Your task to perform on an android device: Search for "dell alienware" on newegg, select the first entry, add it to the cart, then select checkout. Image 0: 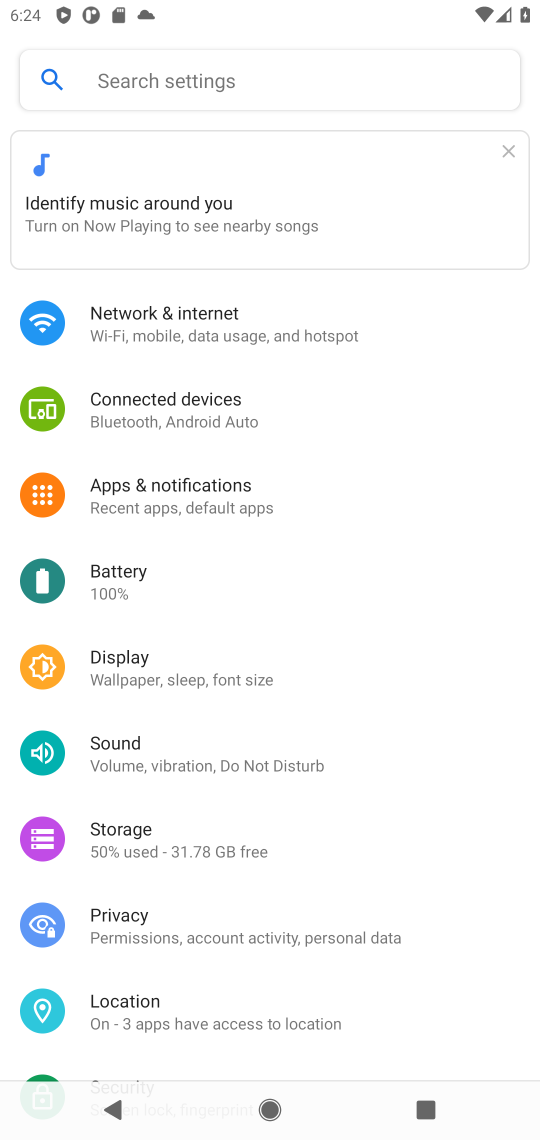
Step 0: press home button
Your task to perform on an android device: Search for "dell alienware" on newegg, select the first entry, add it to the cart, then select checkout. Image 1: 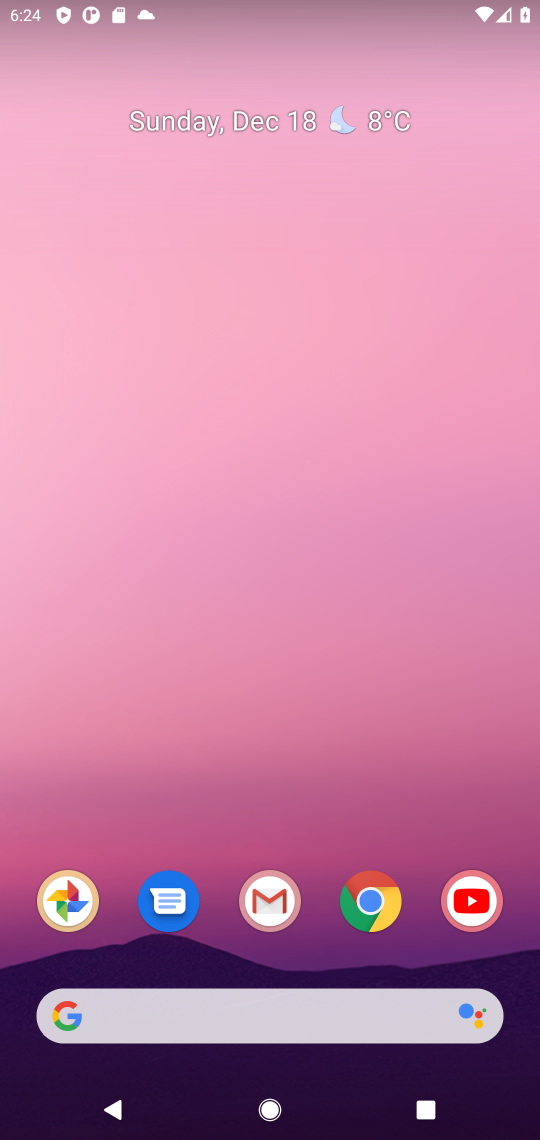
Step 1: click (363, 932)
Your task to perform on an android device: Search for "dell alienware" on newegg, select the first entry, add it to the cart, then select checkout. Image 2: 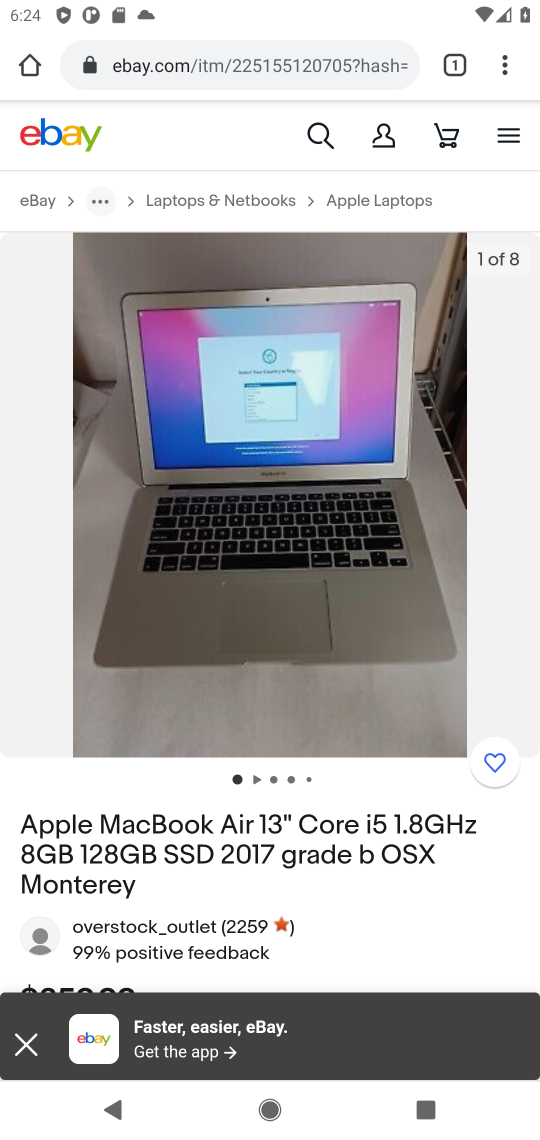
Step 2: click (355, 66)
Your task to perform on an android device: Search for "dell alienware" on newegg, select the first entry, add it to the cart, then select checkout. Image 3: 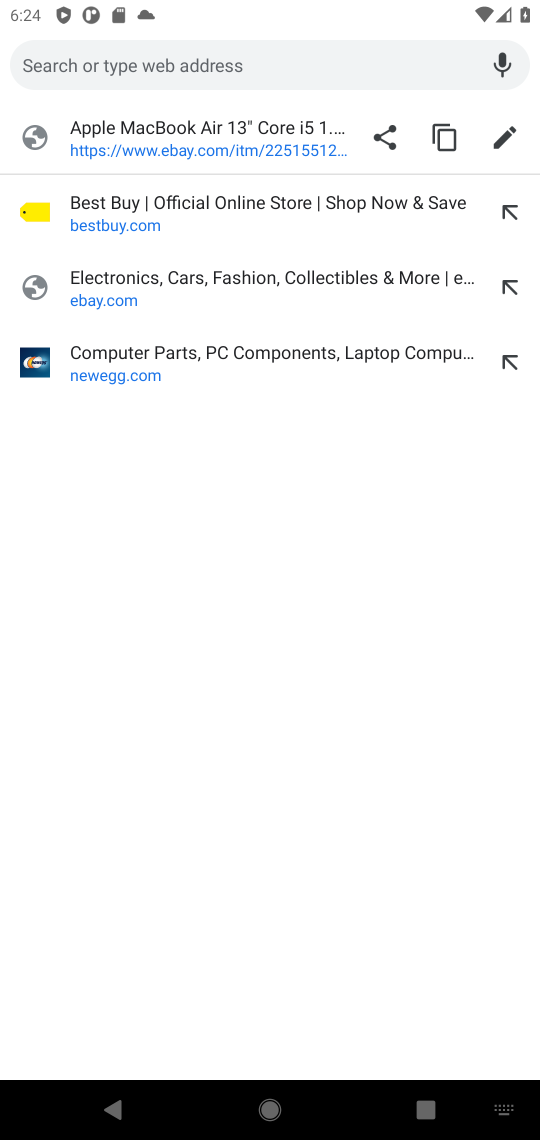
Step 3: click (369, 367)
Your task to perform on an android device: Search for "dell alienware" on newegg, select the first entry, add it to the cart, then select checkout. Image 4: 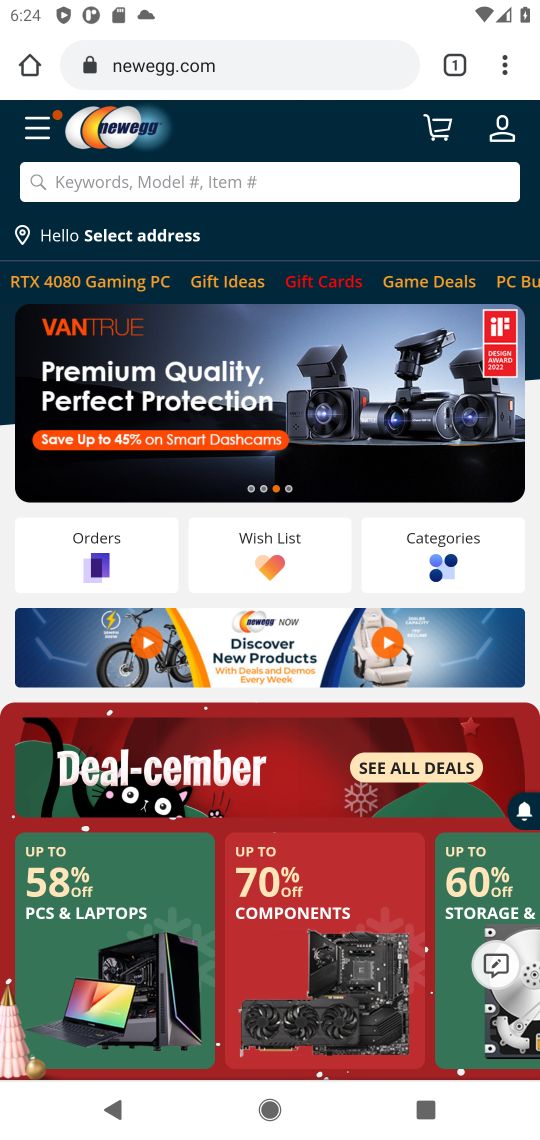
Step 4: click (97, 164)
Your task to perform on an android device: Search for "dell alienware" on newegg, select the first entry, add it to the cart, then select checkout. Image 5: 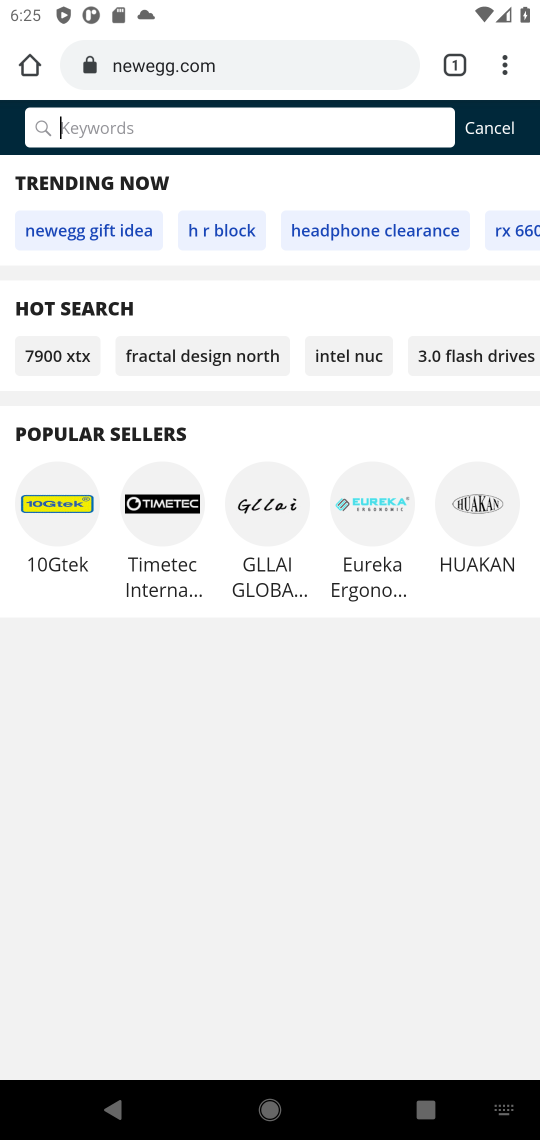
Step 5: type "dell alienware "
Your task to perform on an android device: Search for "dell alienware" on newegg, select the first entry, add it to the cart, then select checkout. Image 6: 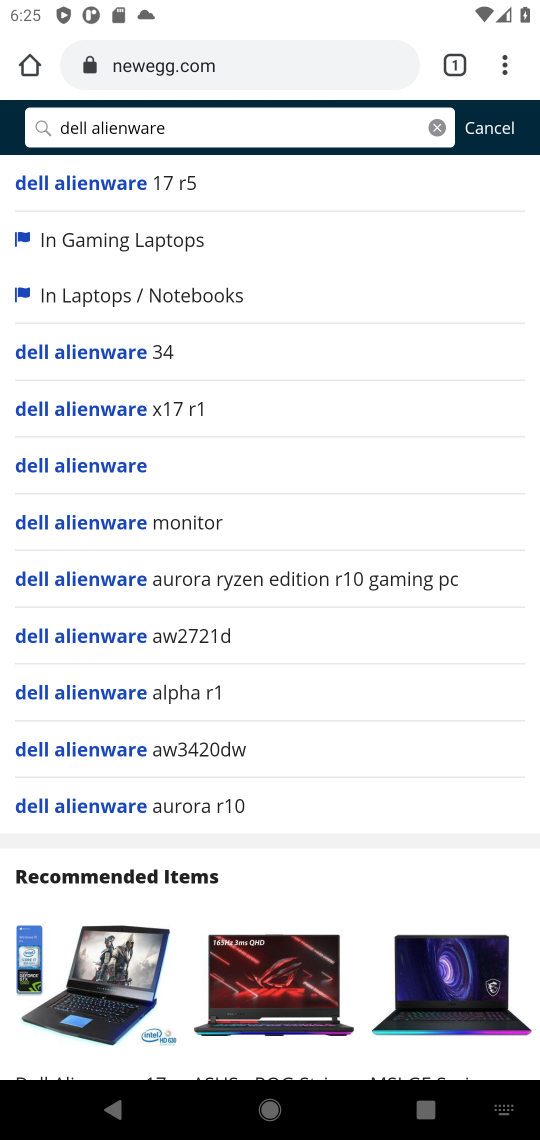
Step 6: click (122, 177)
Your task to perform on an android device: Search for "dell alienware" on newegg, select the first entry, add it to the cart, then select checkout. Image 7: 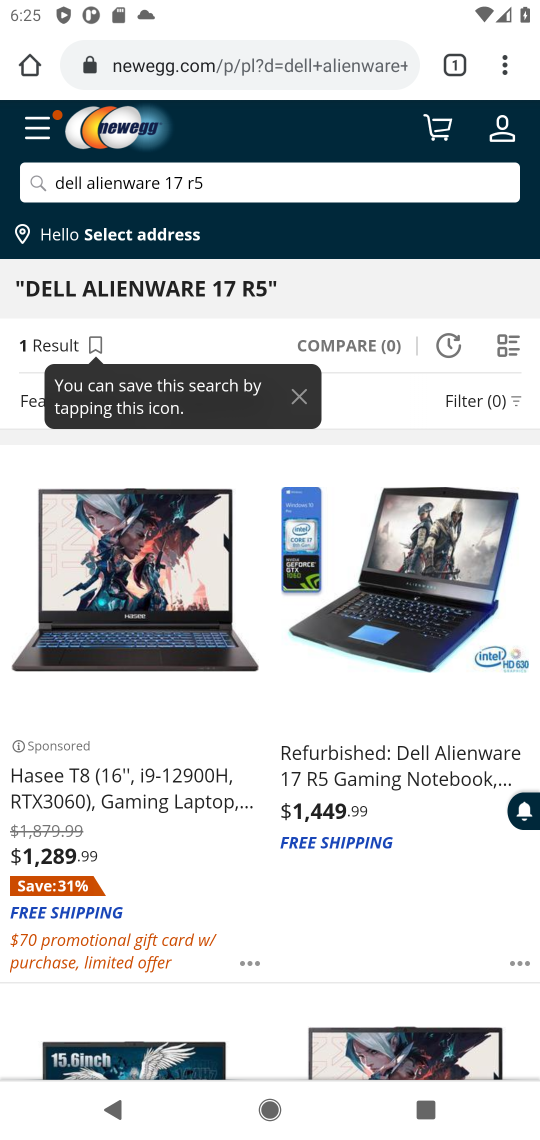
Step 7: click (141, 694)
Your task to perform on an android device: Search for "dell alienware" on newegg, select the first entry, add it to the cart, then select checkout. Image 8: 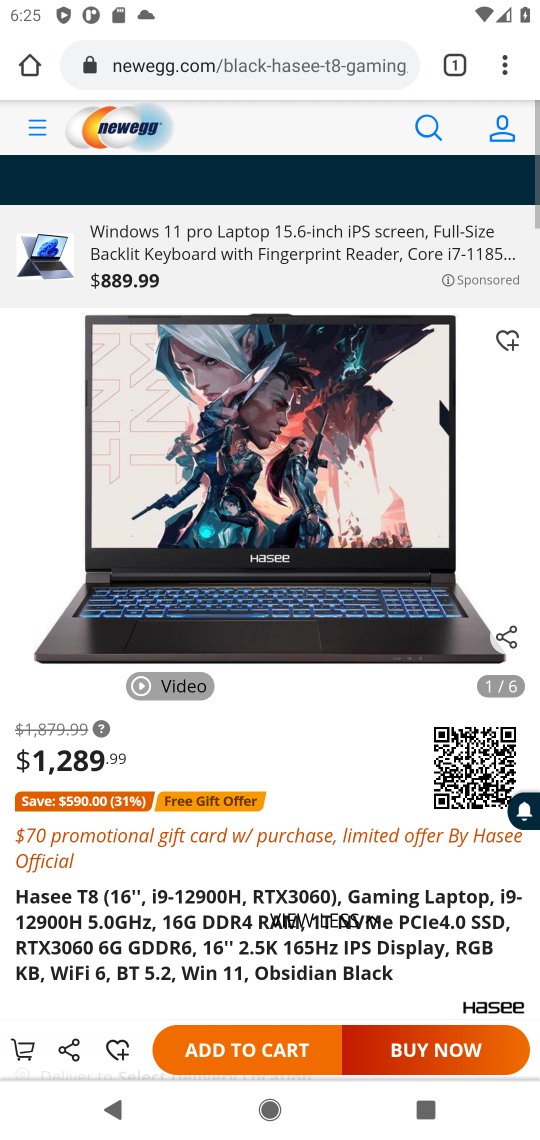
Step 8: click (140, 747)
Your task to perform on an android device: Search for "dell alienware" on newegg, select the first entry, add it to the cart, then select checkout. Image 9: 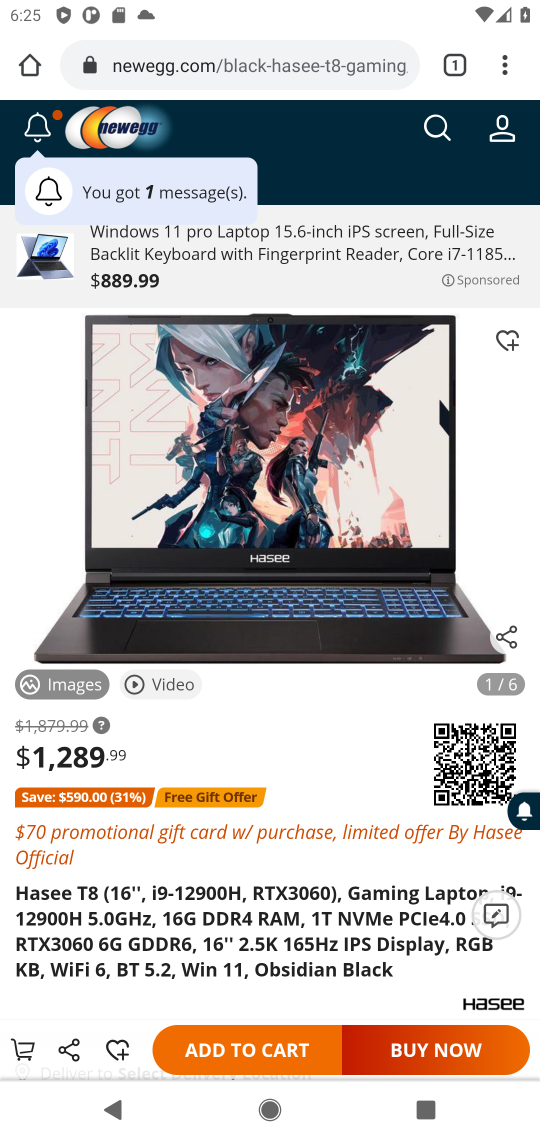
Step 9: click (240, 1024)
Your task to perform on an android device: Search for "dell alienware" on newegg, select the first entry, add it to the cart, then select checkout. Image 10: 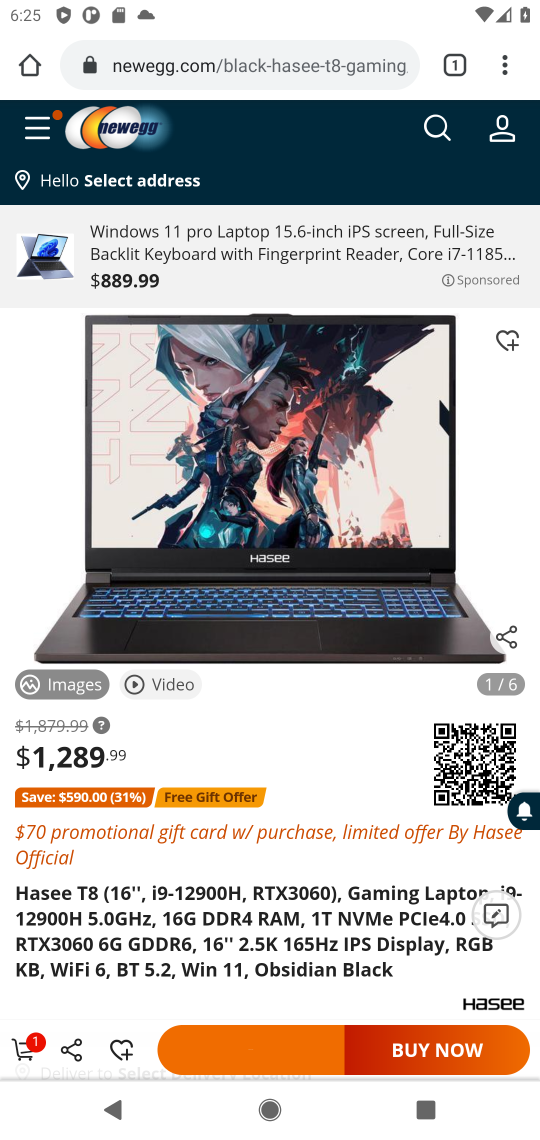
Step 10: task complete